Your task to perform on an android device: set the stopwatch Image 0: 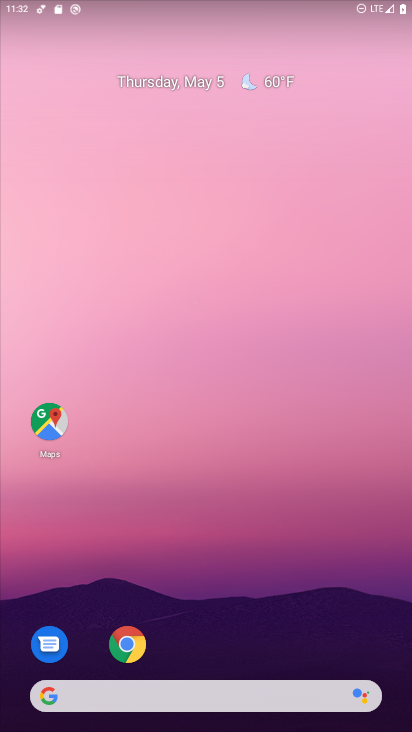
Step 0: drag from (324, 625) to (355, 175)
Your task to perform on an android device: set the stopwatch Image 1: 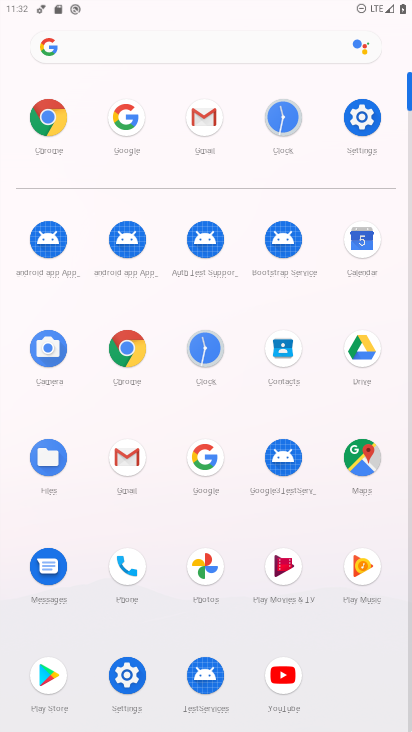
Step 1: click (205, 345)
Your task to perform on an android device: set the stopwatch Image 2: 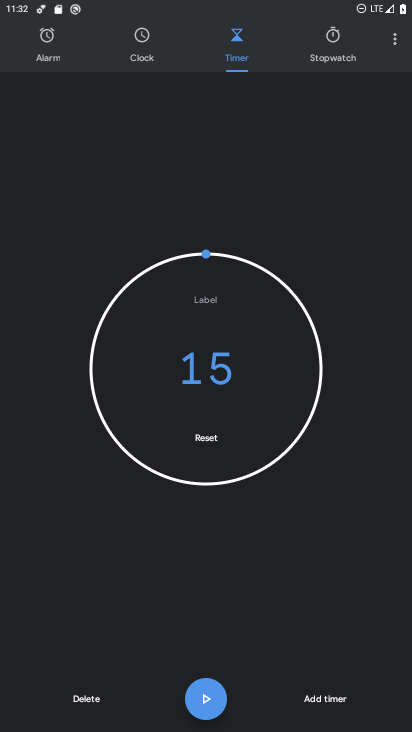
Step 2: click (320, 48)
Your task to perform on an android device: set the stopwatch Image 3: 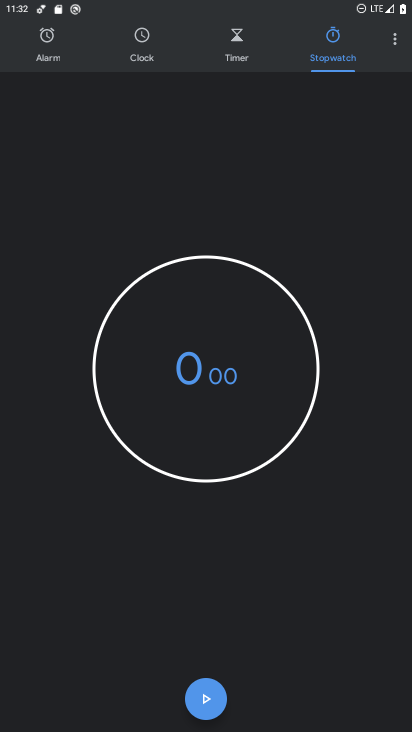
Step 3: click (201, 696)
Your task to perform on an android device: set the stopwatch Image 4: 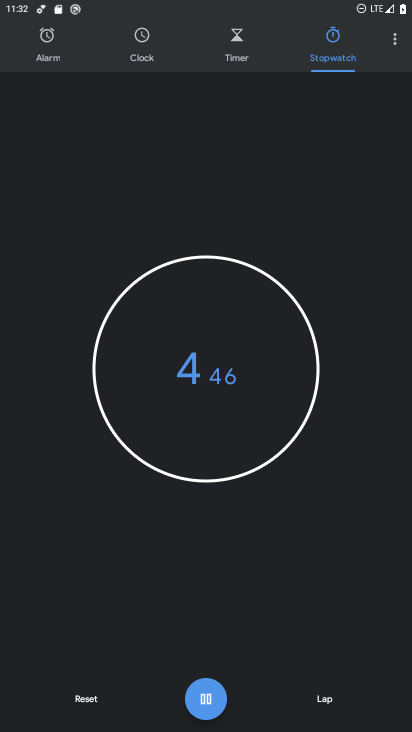
Step 4: click (207, 700)
Your task to perform on an android device: set the stopwatch Image 5: 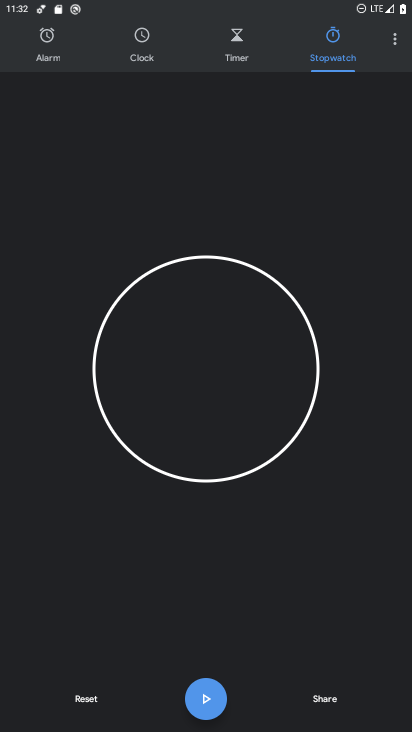
Step 5: task complete